Your task to perform on an android device: see tabs open on other devices in the chrome app Image 0: 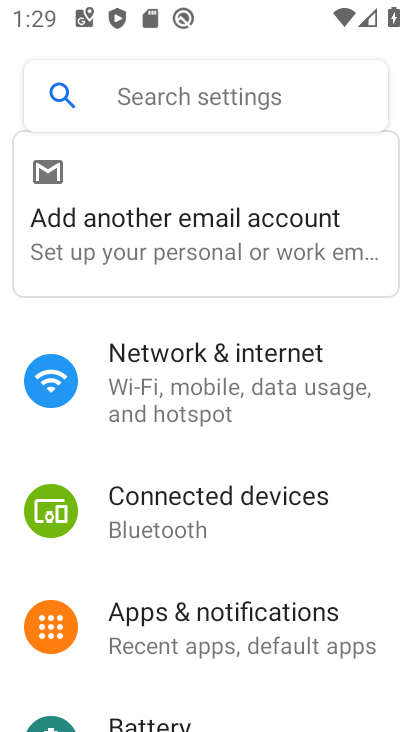
Step 0: press home button
Your task to perform on an android device: see tabs open on other devices in the chrome app Image 1: 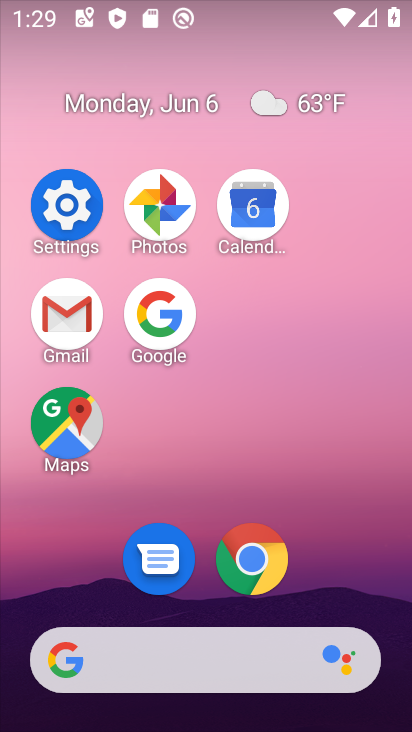
Step 1: click (268, 539)
Your task to perform on an android device: see tabs open on other devices in the chrome app Image 2: 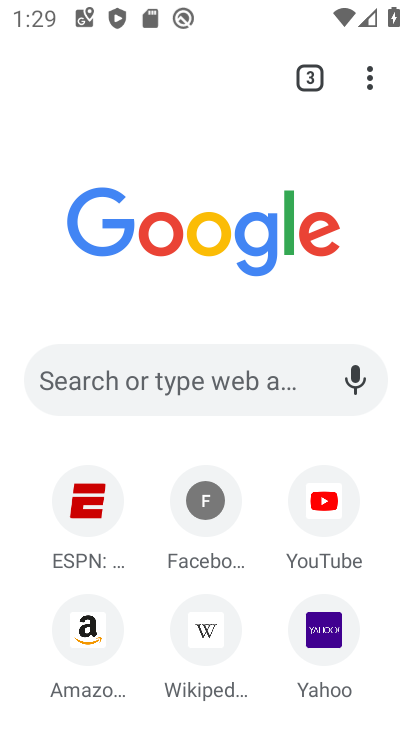
Step 2: click (388, 91)
Your task to perform on an android device: see tabs open on other devices in the chrome app Image 3: 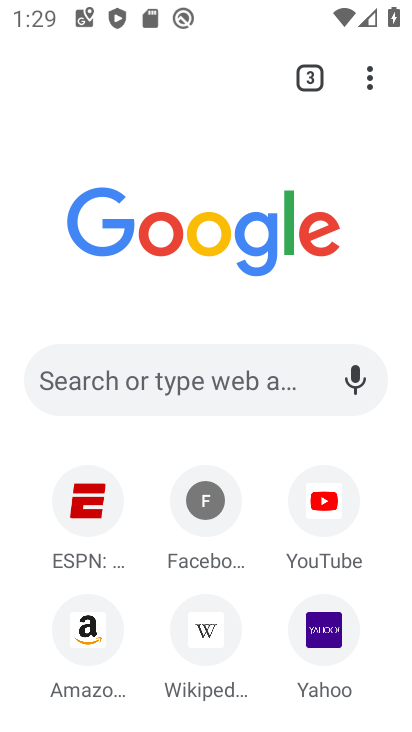
Step 3: click (379, 79)
Your task to perform on an android device: see tabs open on other devices in the chrome app Image 4: 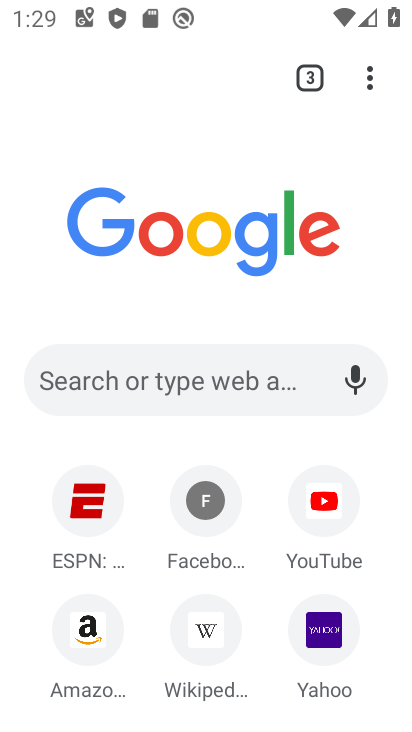
Step 4: click (375, 81)
Your task to perform on an android device: see tabs open on other devices in the chrome app Image 5: 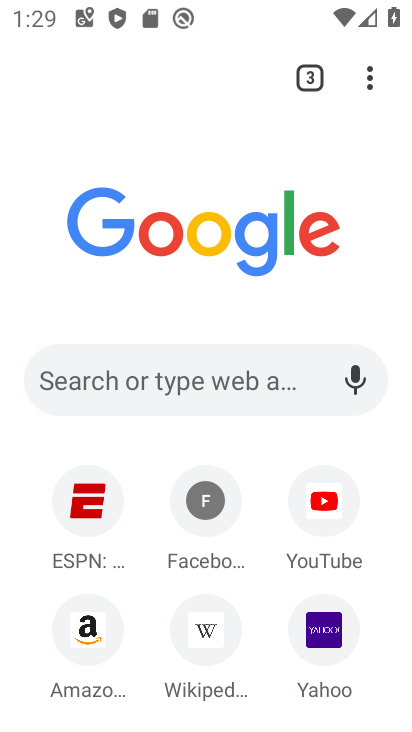
Step 5: click (376, 66)
Your task to perform on an android device: see tabs open on other devices in the chrome app Image 6: 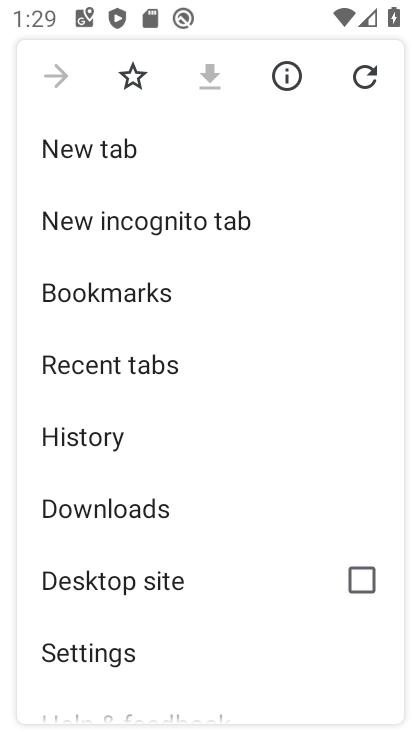
Step 6: click (191, 371)
Your task to perform on an android device: see tabs open on other devices in the chrome app Image 7: 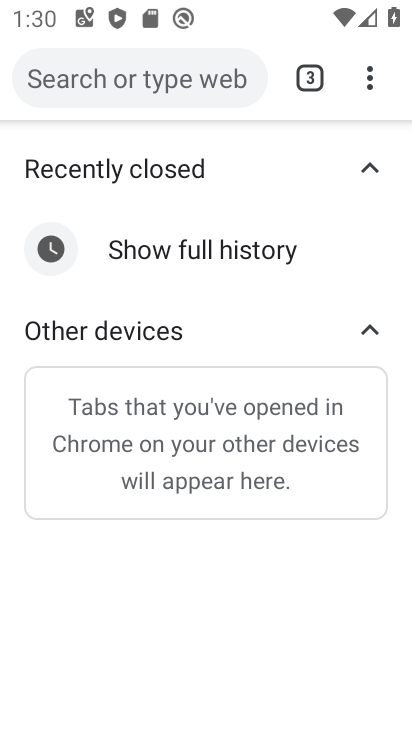
Step 7: task complete